Your task to perform on an android device: Open calendar and show me the first week of next month Image 0: 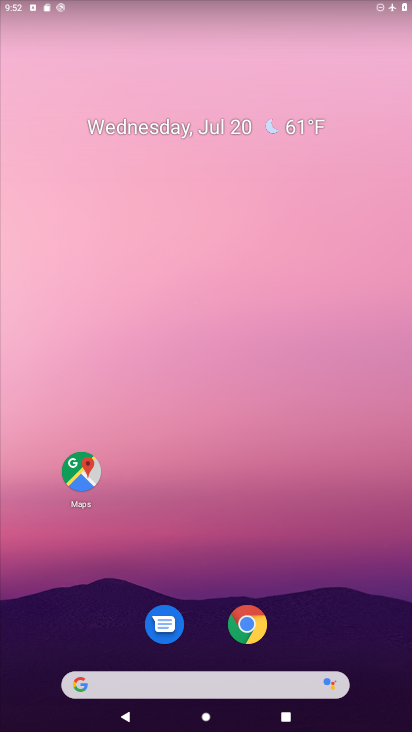
Step 0: drag from (222, 582) to (234, 192)
Your task to perform on an android device: Open calendar and show me the first week of next month Image 1: 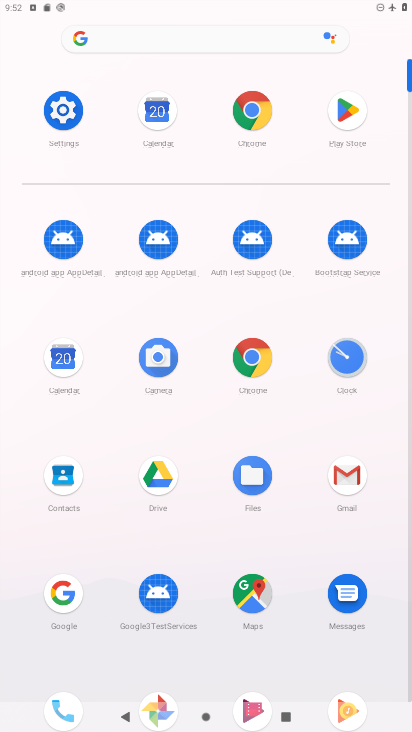
Step 1: click (149, 124)
Your task to perform on an android device: Open calendar and show me the first week of next month Image 2: 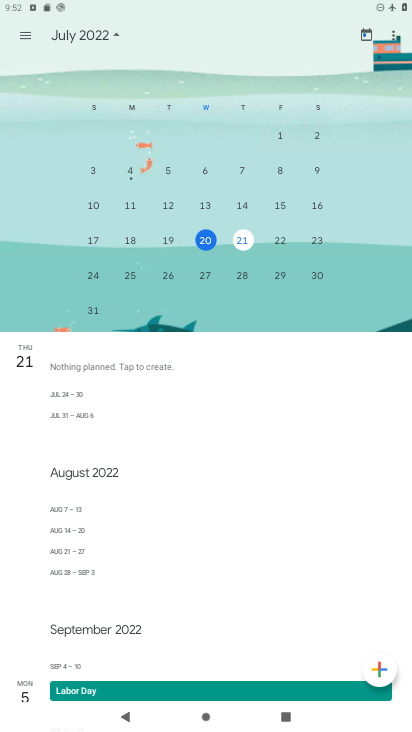
Step 2: drag from (348, 177) to (1, 151)
Your task to perform on an android device: Open calendar and show me the first week of next month Image 3: 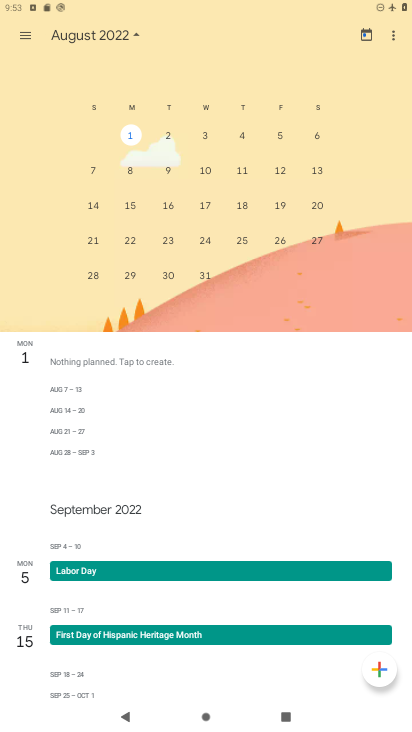
Step 3: click (127, 133)
Your task to perform on an android device: Open calendar and show me the first week of next month Image 4: 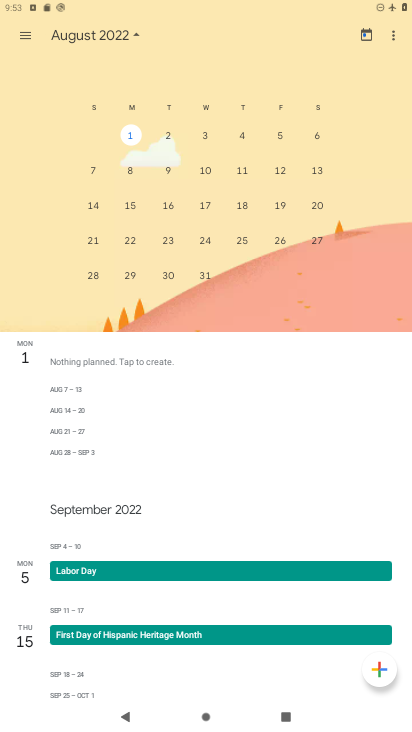
Step 4: task complete